Your task to perform on an android device: Open network settings Image 0: 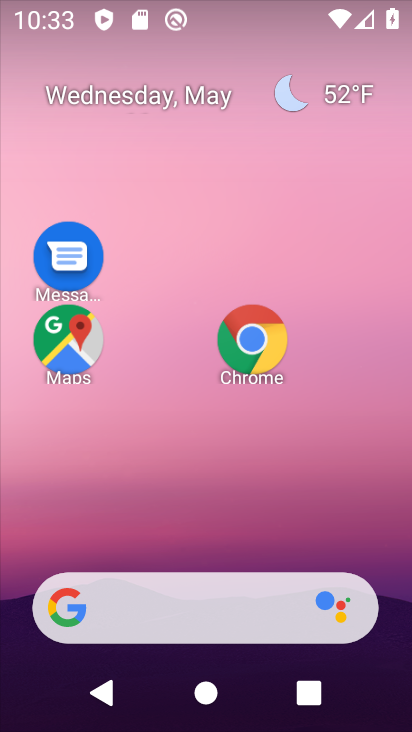
Step 0: drag from (180, 478) to (217, 98)
Your task to perform on an android device: Open network settings Image 1: 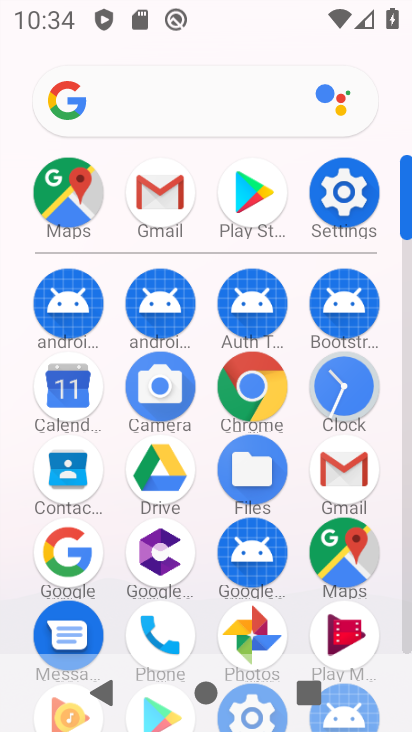
Step 1: click (337, 193)
Your task to perform on an android device: Open network settings Image 2: 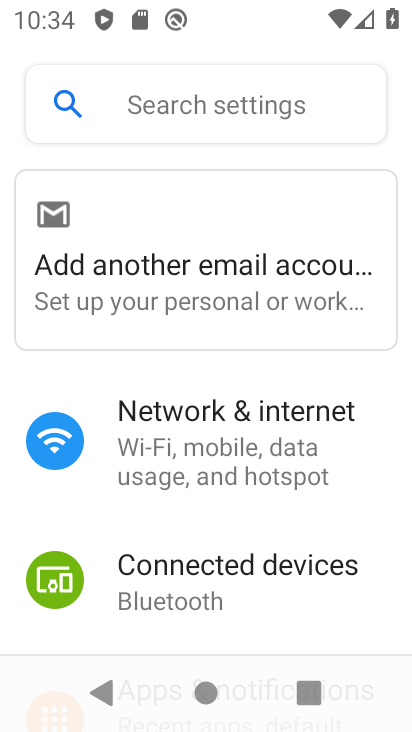
Step 2: click (234, 441)
Your task to perform on an android device: Open network settings Image 3: 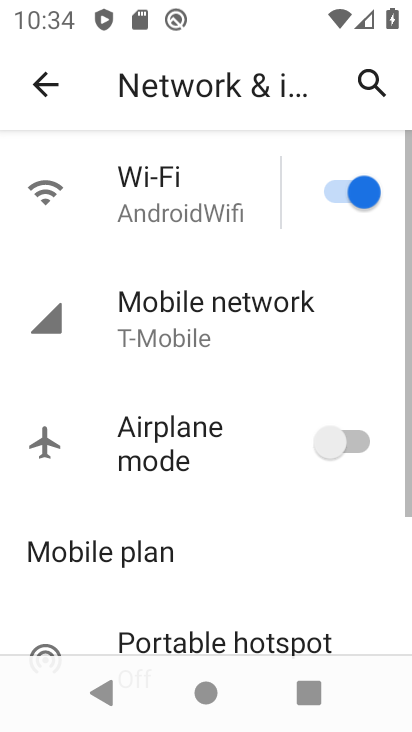
Step 3: click (199, 336)
Your task to perform on an android device: Open network settings Image 4: 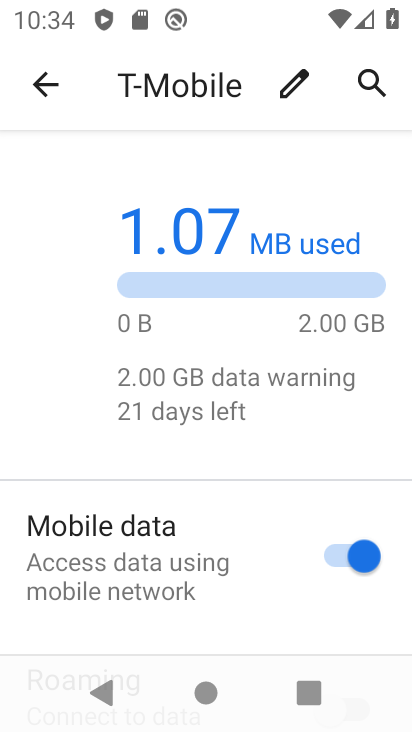
Step 4: task complete